Your task to perform on an android device: Go to internet settings Image 0: 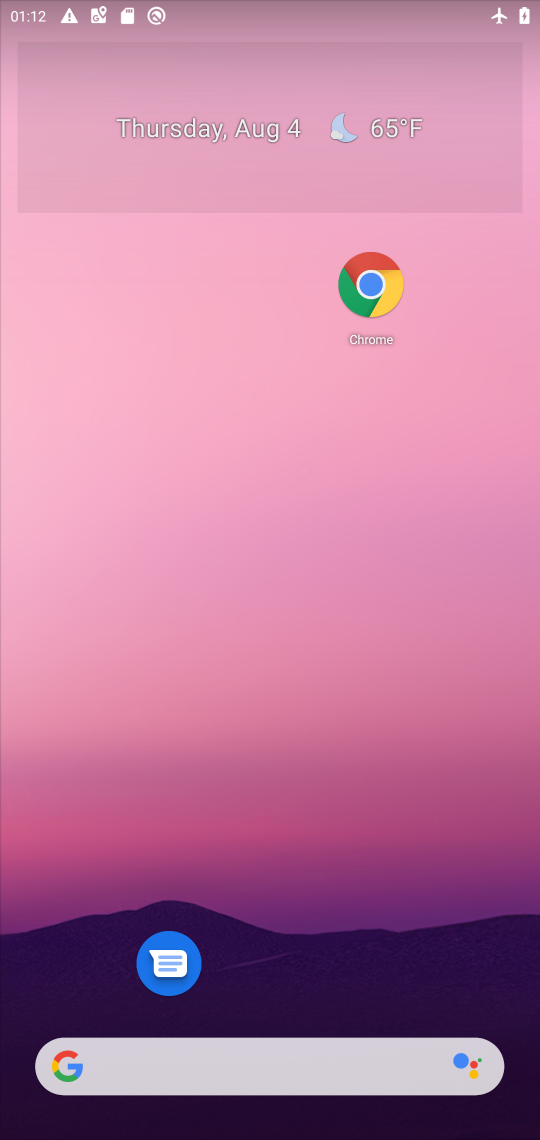
Step 0: drag from (257, 1016) to (261, 546)
Your task to perform on an android device: Go to internet settings Image 1: 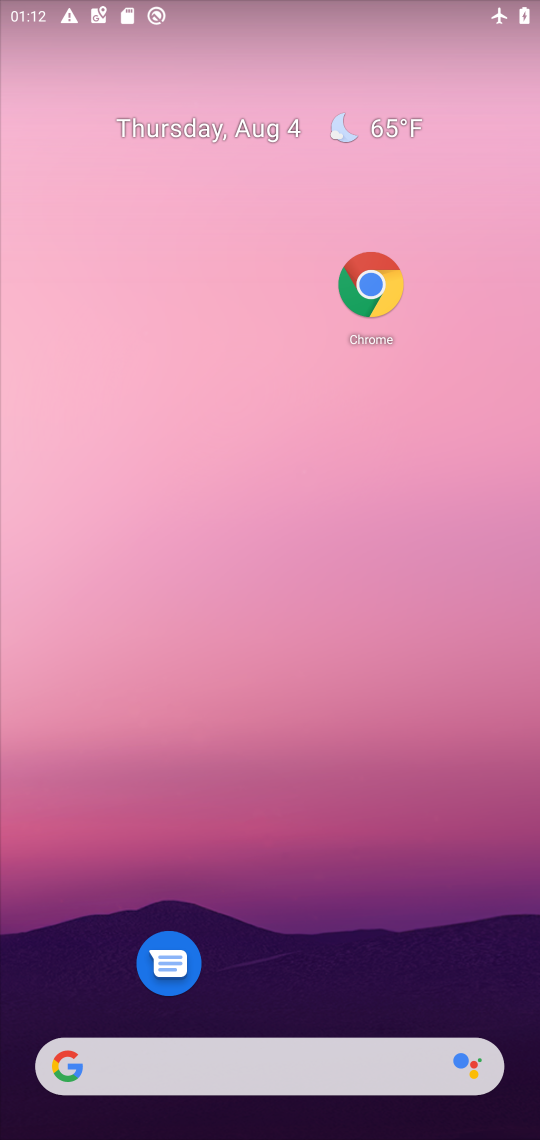
Step 1: drag from (305, 971) to (275, 277)
Your task to perform on an android device: Go to internet settings Image 2: 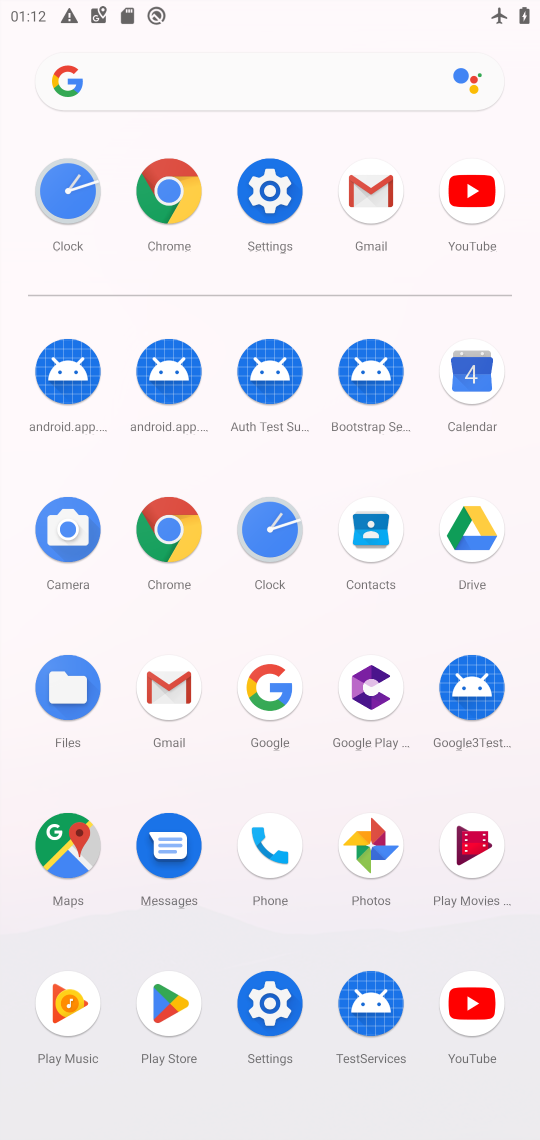
Step 2: click (284, 179)
Your task to perform on an android device: Go to internet settings Image 3: 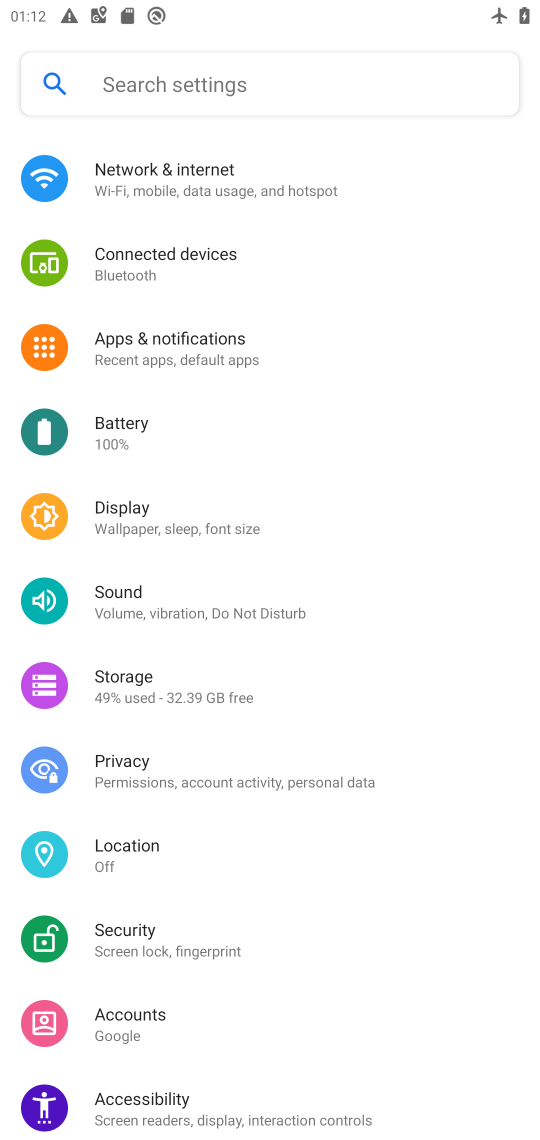
Step 3: click (190, 343)
Your task to perform on an android device: Go to internet settings Image 4: 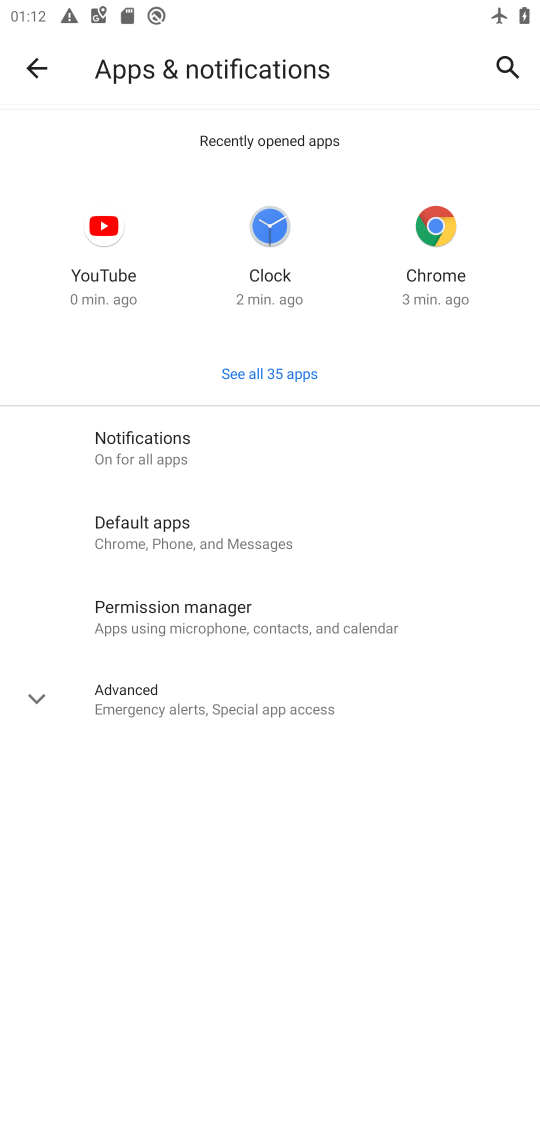
Step 4: click (39, 59)
Your task to perform on an android device: Go to internet settings Image 5: 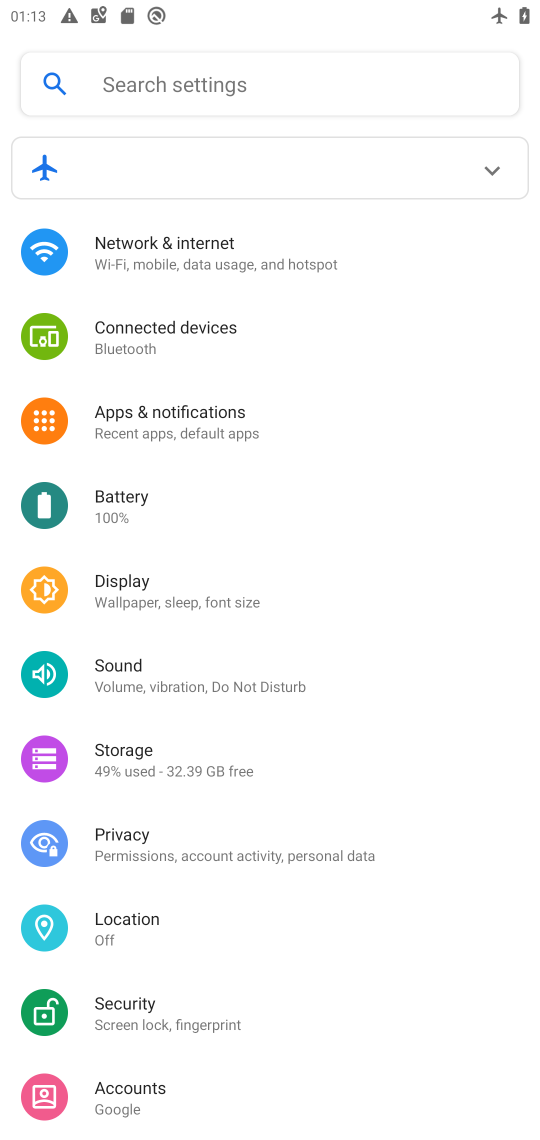
Step 5: click (247, 257)
Your task to perform on an android device: Go to internet settings Image 6: 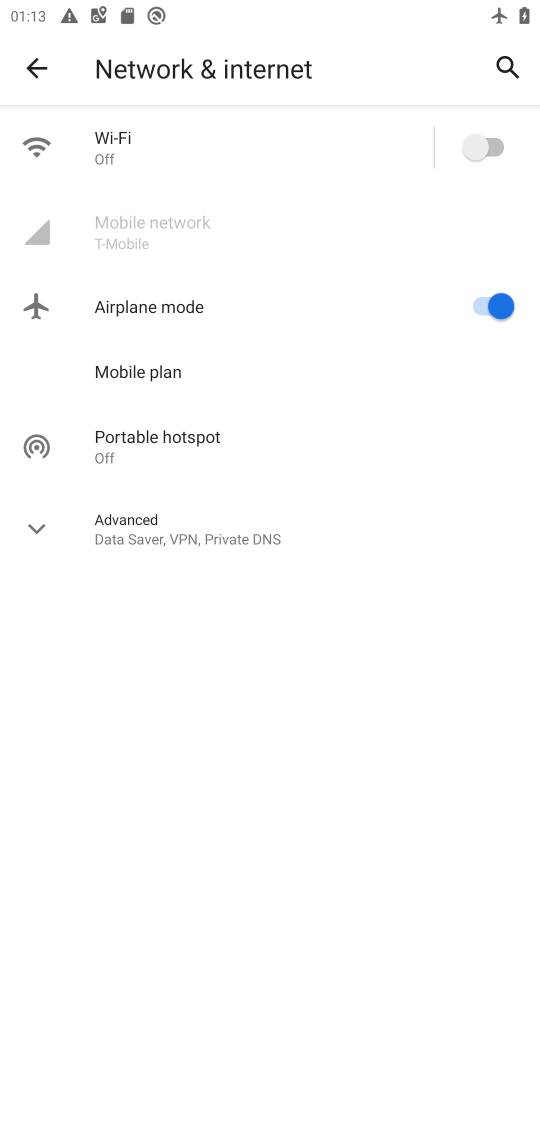
Step 6: task complete